Your task to perform on an android device: search for starred emails in the gmail app Image 0: 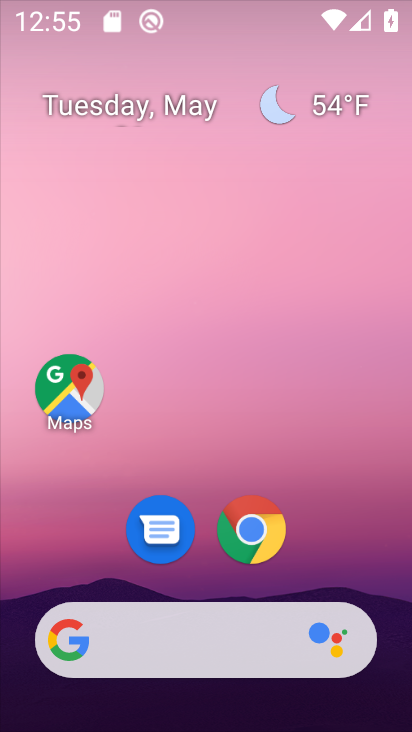
Step 0: click (301, 243)
Your task to perform on an android device: search for starred emails in the gmail app Image 1: 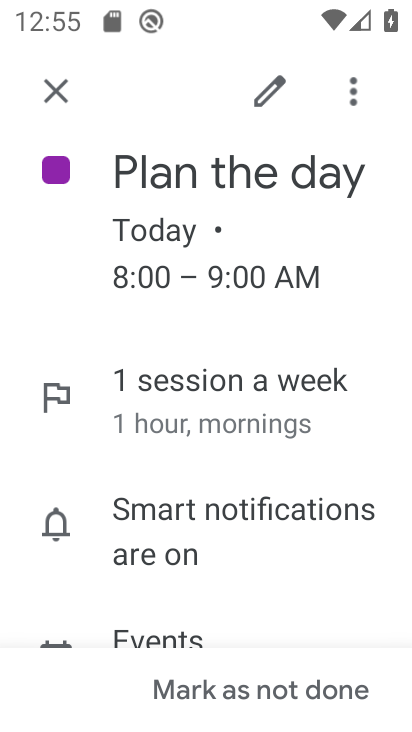
Step 1: press home button
Your task to perform on an android device: search for starred emails in the gmail app Image 2: 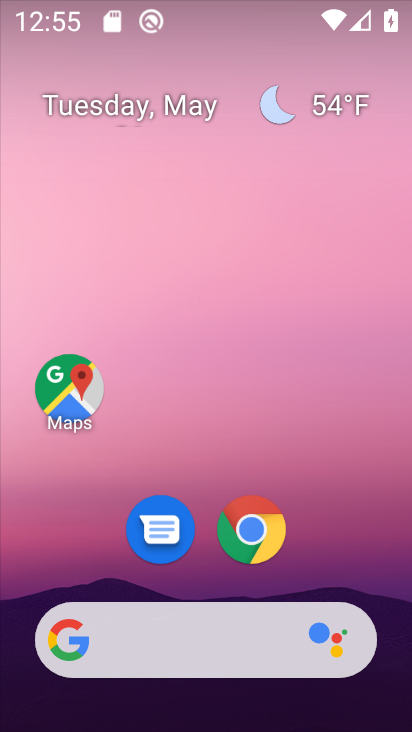
Step 2: drag from (208, 508) to (196, 206)
Your task to perform on an android device: search for starred emails in the gmail app Image 3: 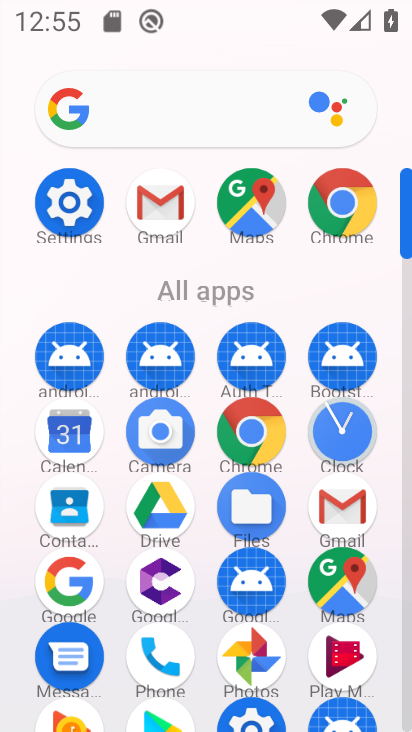
Step 3: click (330, 503)
Your task to perform on an android device: search for starred emails in the gmail app Image 4: 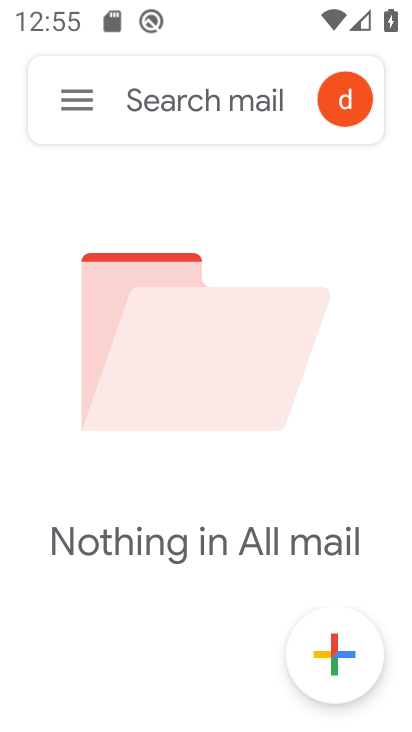
Step 4: click (87, 92)
Your task to perform on an android device: search for starred emails in the gmail app Image 5: 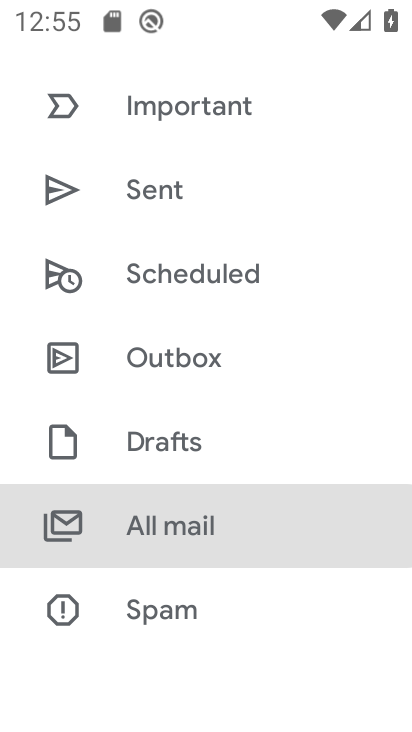
Step 5: drag from (168, 196) to (164, 646)
Your task to perform on an android device: search for starred emails in the gmail app Image 6: 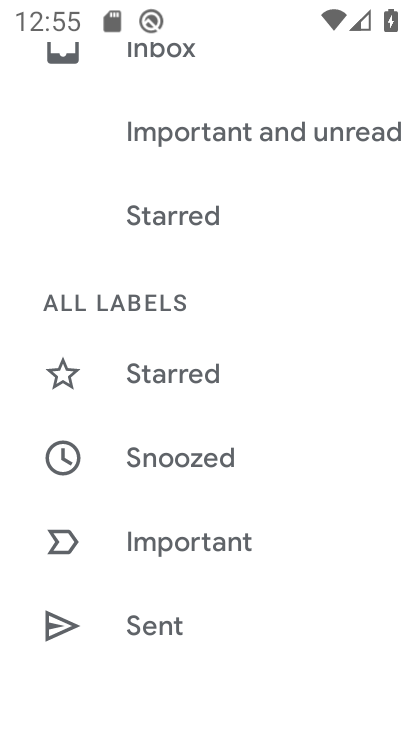
Step 6: click (181, 361)
Your task to perform on an android device: search for starred emails in the gmail app Image 7: 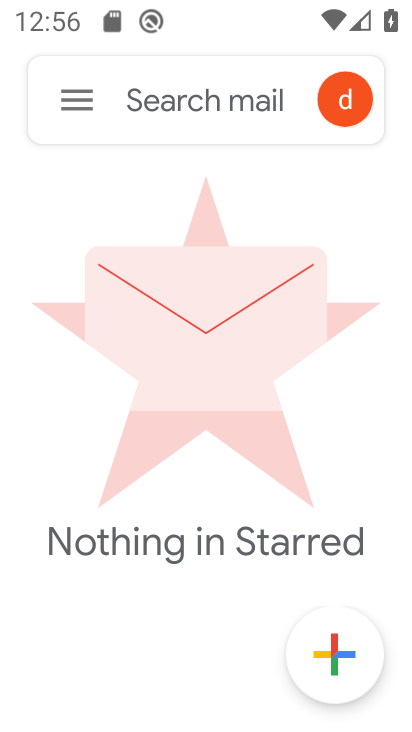
Step 7: task complete